Your task to perform on an android device: Open Google Maps and go to "Timeline" Image 0: 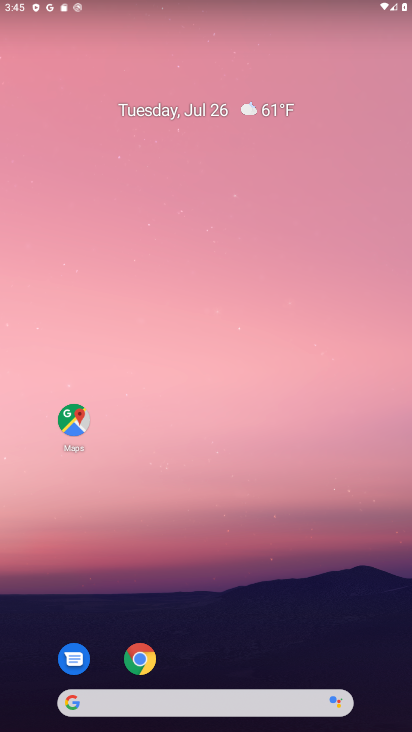
Step 0: drag from (325, 612) to (290, 8)
Your task to perform on an android device: Open Google Maps and go to "Timeline" Image 1: 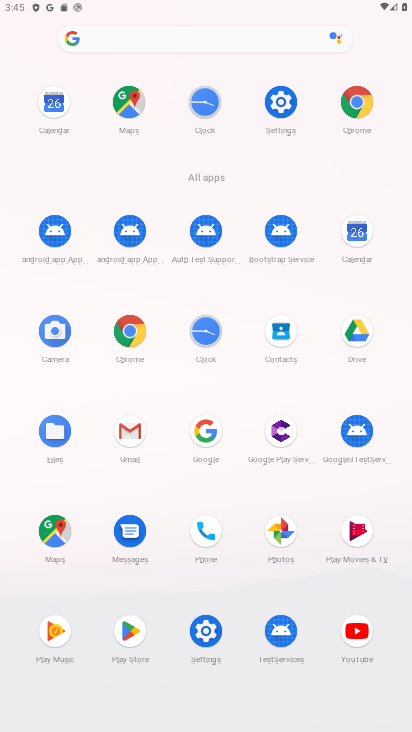
Step 1: click (51, 533)
Your task to perform on an android device: Open Google Maps and go to "Timeline" Image 2: 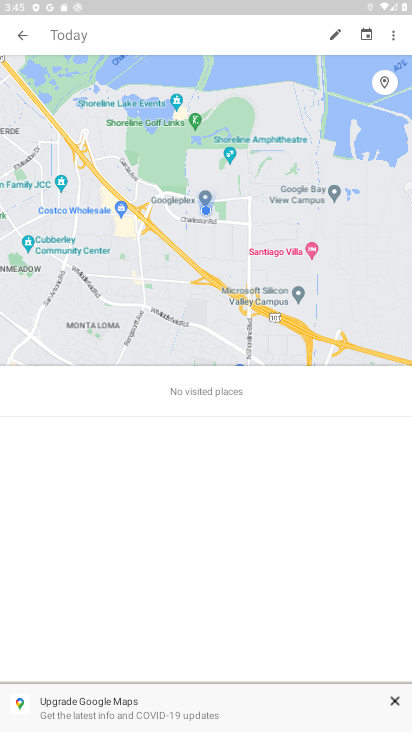
Step 2: task complete